Your task to perform on an android device: What is the news today? Image 0: 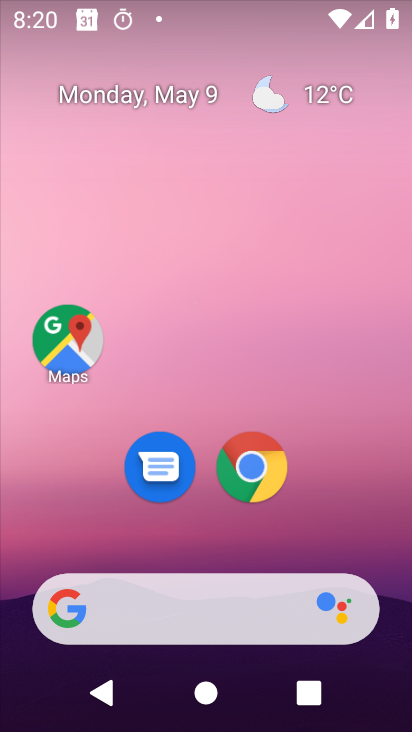
Step 0: drag from (22, 226) to (386, 577)
Your task to perform on an android device: What is the news today? Image 1: 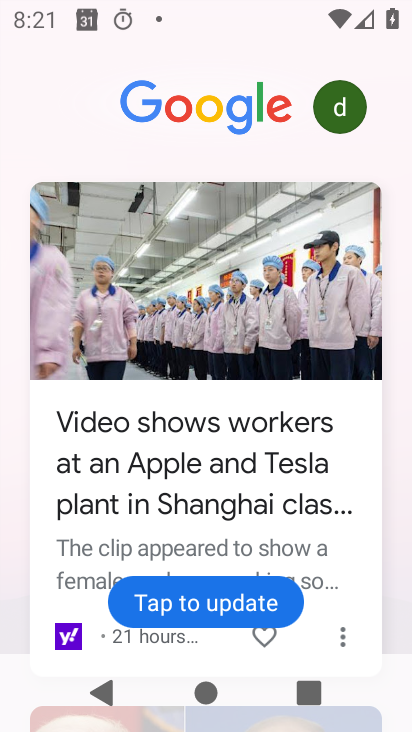
Step 1: task complete